Your task to perform on an android device: toggle improve location accuracy Image 0: 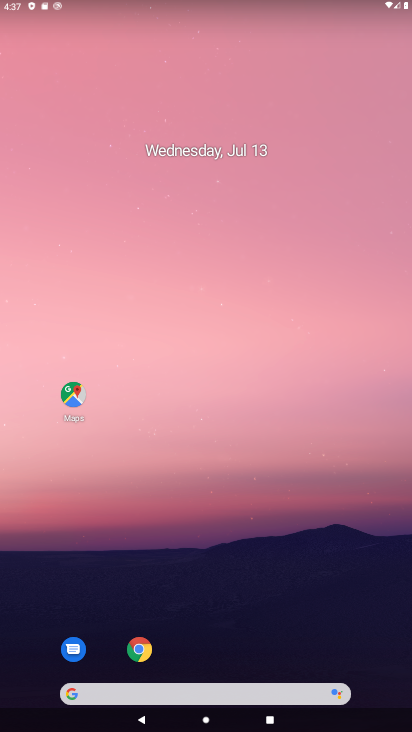
Step 0: drag from (278, 691) to (296, 50)
Your task to perform on an android device: toggle improve location accuracy Image 1: 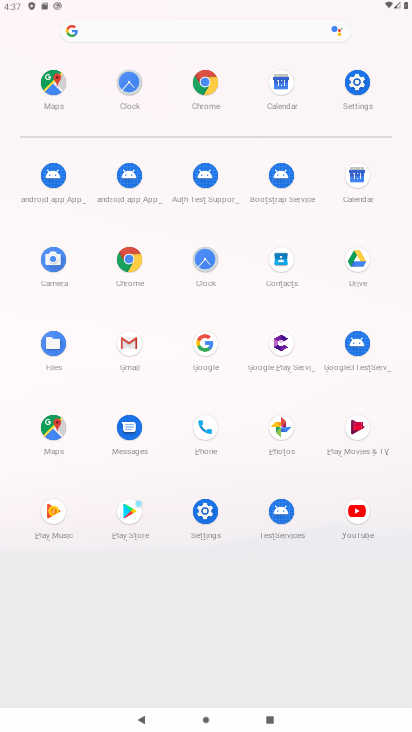
Step 1: click (347, 81)
Your task to perform on an android device: toggle improve location accuracy Image 2: 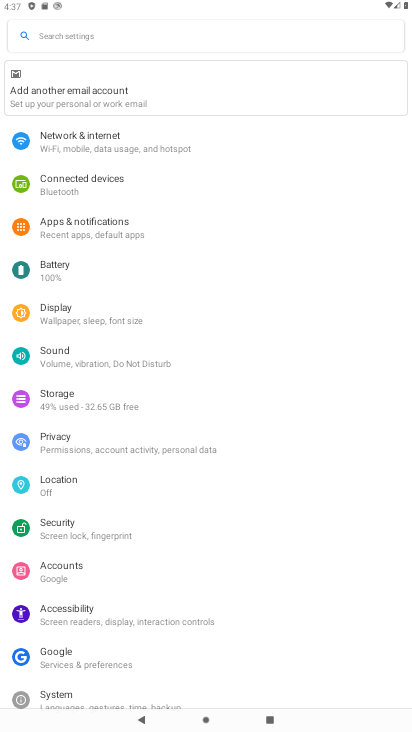
Step 2: click (83, 484)
Your task to perform on an android device: toggle improve location accuracy Image 3: 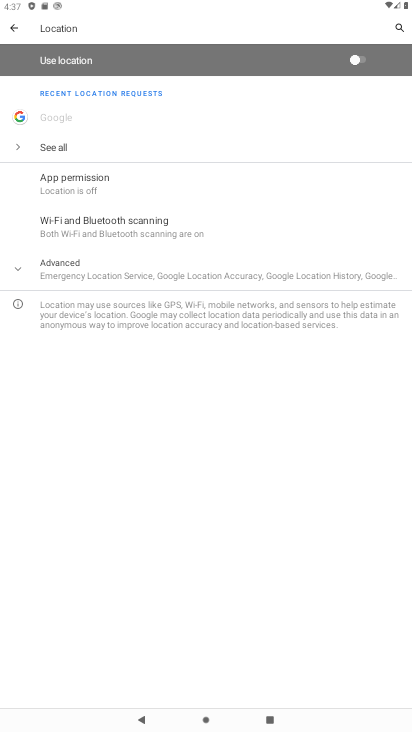
Step 3: click (56, 270)
Your task to perform on an android device: toggle improve location accuracy Image 4: 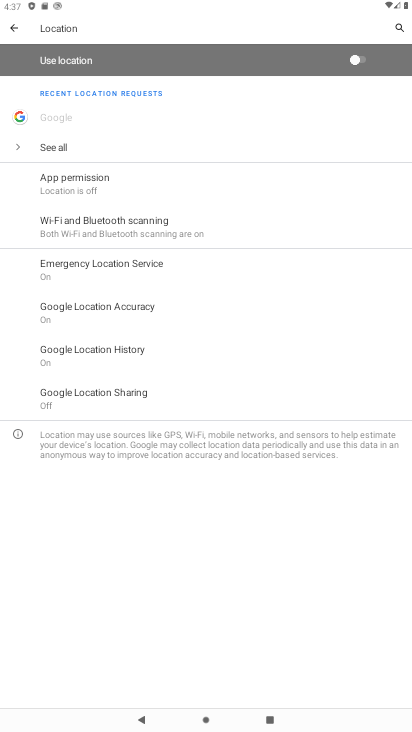
Step 4: click (50, 304)
Your task to perform on an android device: toggle improve location accuracy Image 5: 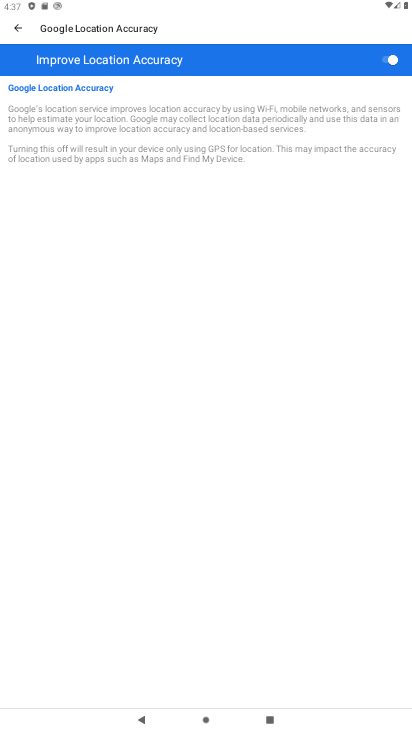
Step 5: click (397, 61)
Your task to perform on an android device: toggle improve location accuracy Image 6: 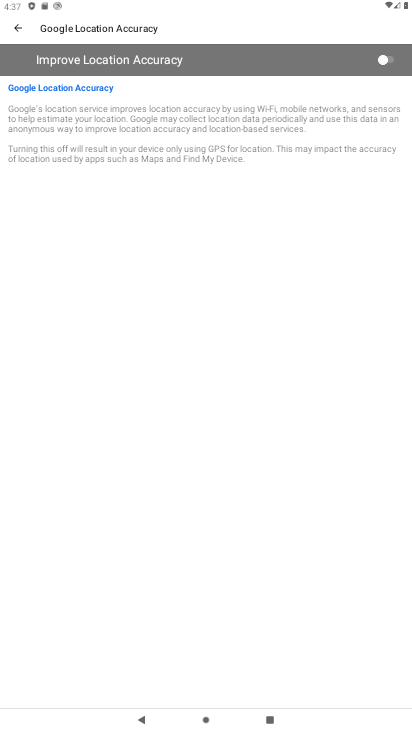
Step 6: task complete